Your task to perform on an android device: Open eBay Image 0: 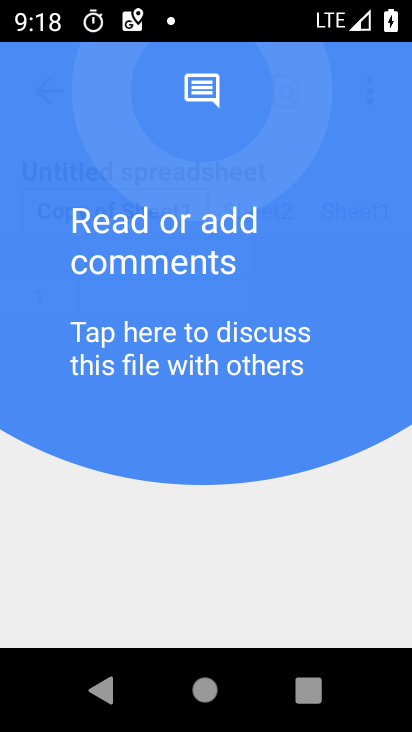
Step 0: click (210, 514)
Your task to perform on an android device: Open eBay Image 1: 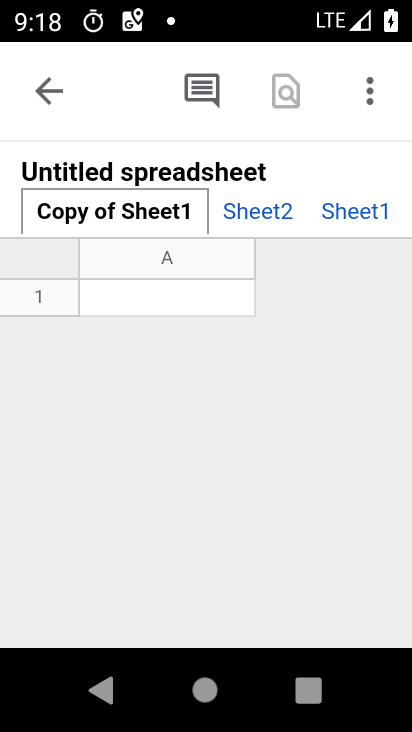
Step 1: press home button
Your task to perform on an android device: Open eBay Image 2: 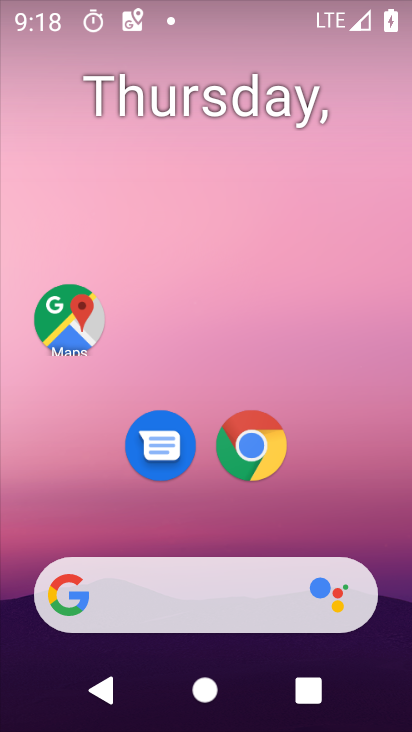
Step 2: drag from (194, 558) to (291, 50)
Your task to perform on an android device: Open eBay Image 3: 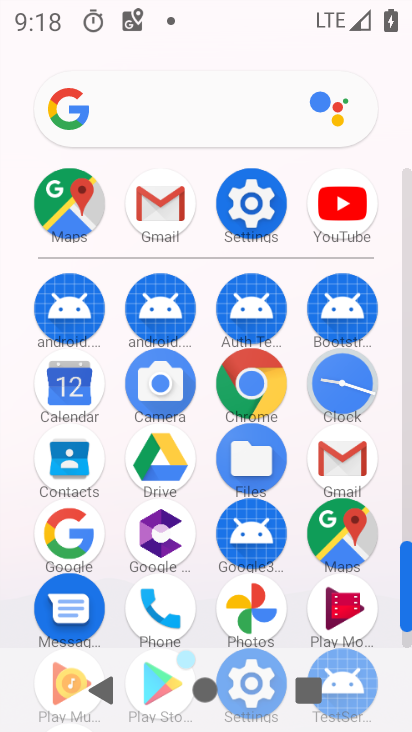
Step 3: click (191, 98)
Your task to perform on an android device: Open eBay Image 4: 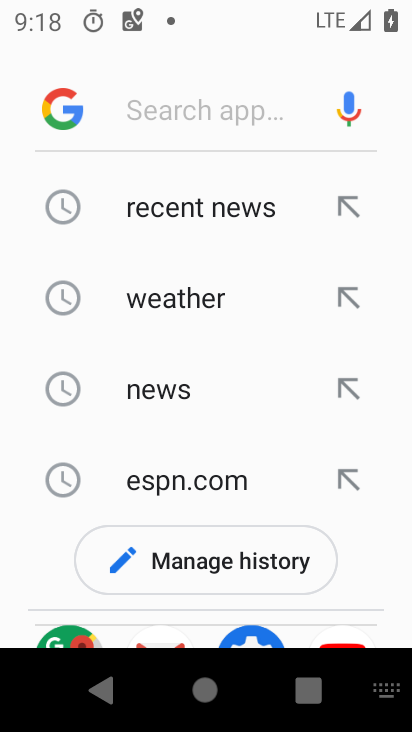
Step 4: type "ebay"
Your task to perform on an android device: Open eBay Image 5: 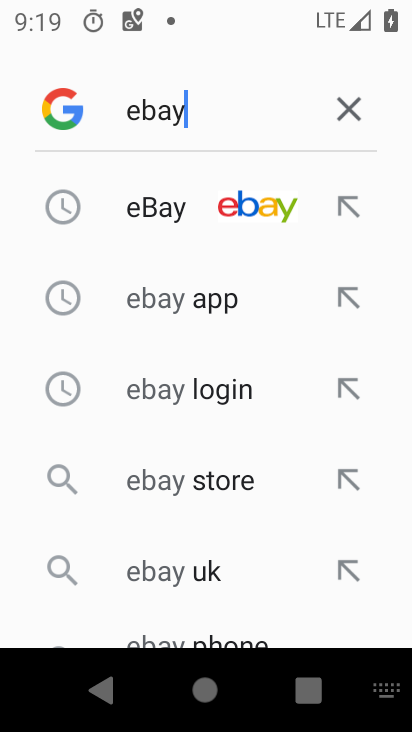
Step 5: click (132, 236)
Your task to perform on an android device: Open eBay Image 6: 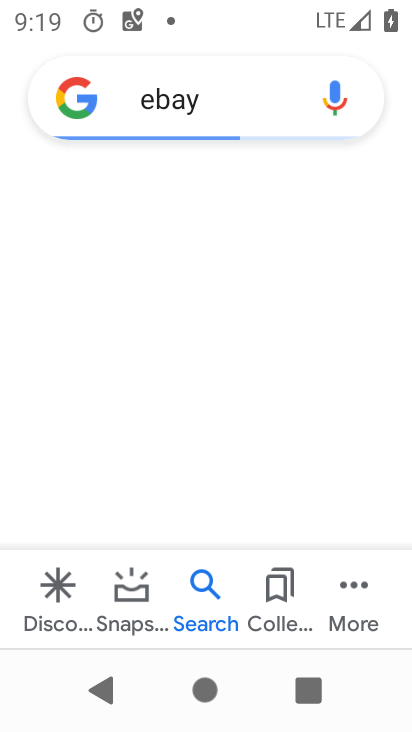
Step 6: task complete